Your task to perform on an android device: toggle notification dots Image 0: 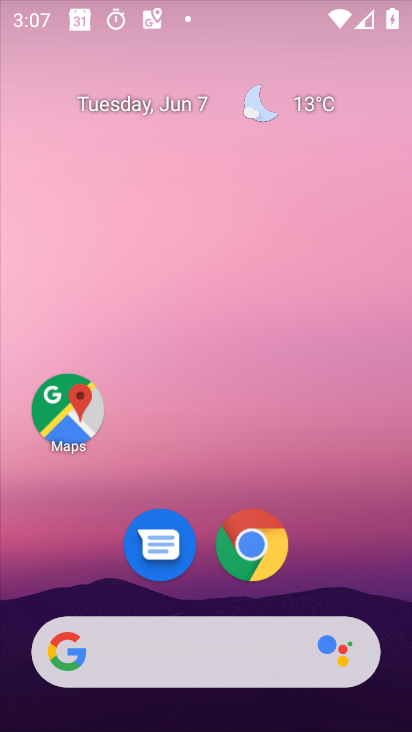
Step 0: drag from (337, 525) to (207, 53)
Your task to perform on an android device: toggle notification dots Image 1: 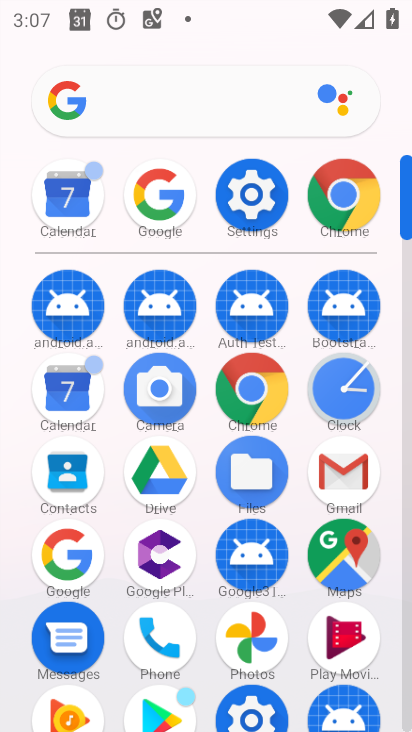
Step 1: click (253, 199)
Your task to perform on an android device: toggle notification dots Image 2: 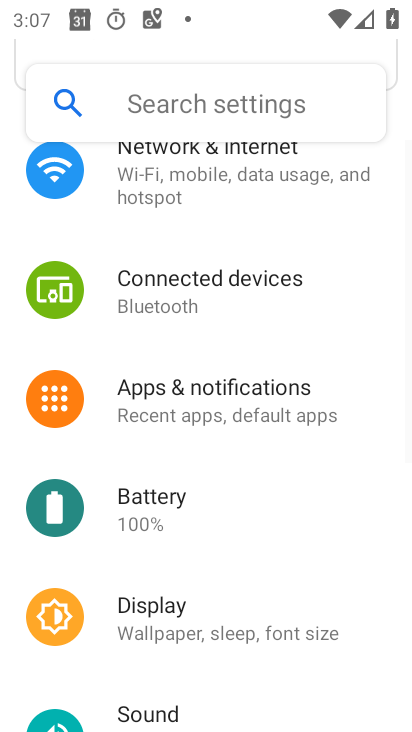
Step 2: drag from (237, 515) to (239, 384)
Your task to perform on an android device: toggle notification dots Image 3: 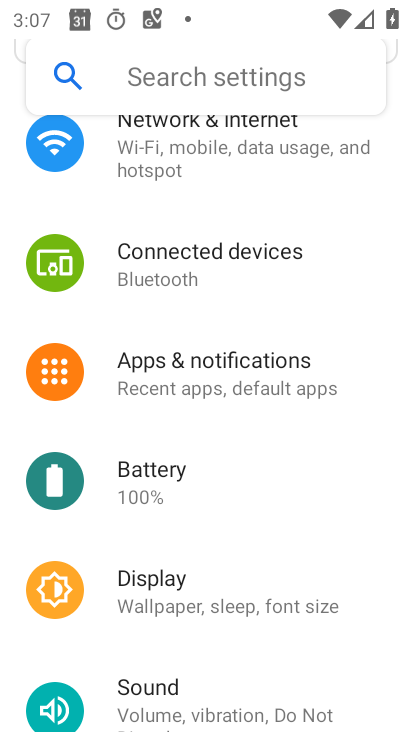
Step 3: click (227, 372)
Your task to perform on an android device: toggle notification dots Image 4: 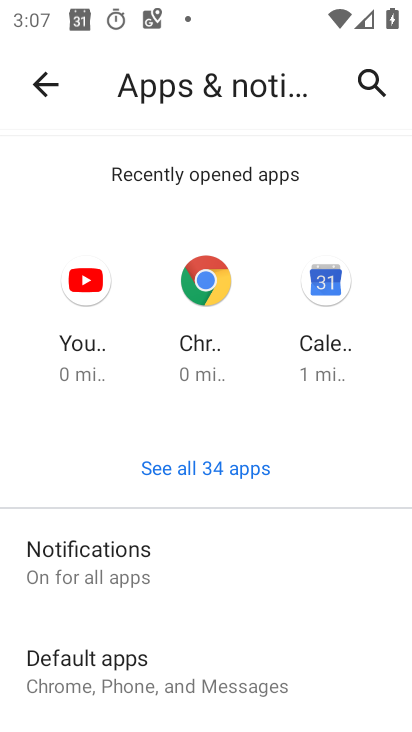
Step 4: click (197, 563)
Your task to perform on an android device: toggle notification dots Image 5: 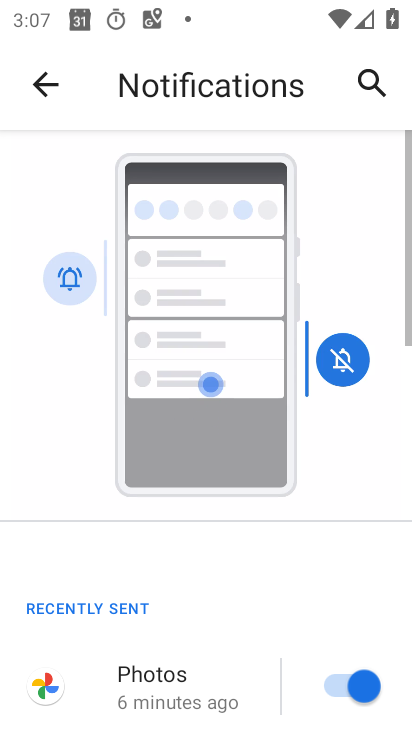
Step 5: drag from (243, 647) to (252, 72)
Your task to perform on an android device: toggle notification dots Image 6: 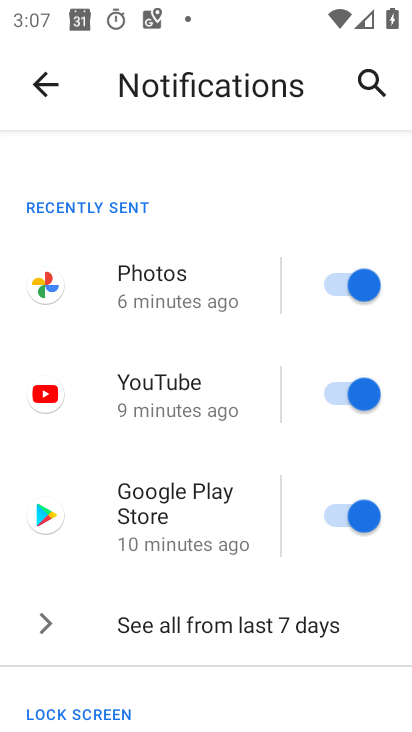
Step 6: drag from (241, 640) to (237, 181)
Your task to perform on an android device: toggle notification dots Image 7: 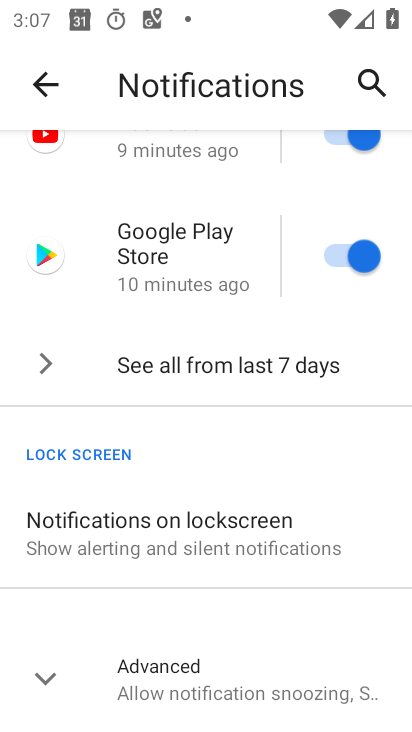
Step 7: click (207, 671)
Your task to perform on an android device: toggle notification dots Image 8: 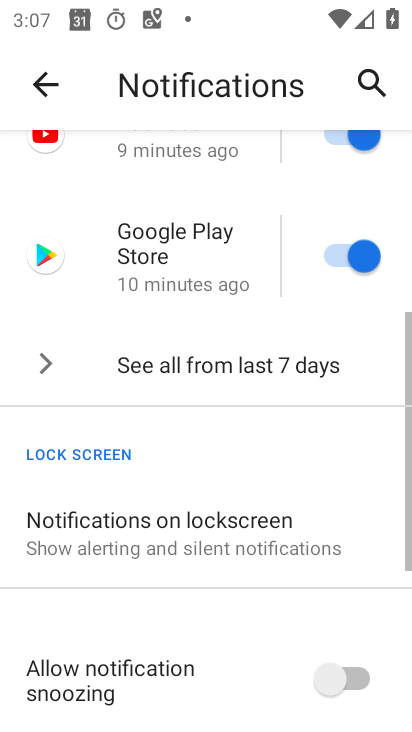
Step 8: drag from (262, 657) to (235, 214)
Your task to perform on an android device: toggle notification dots Image 9: 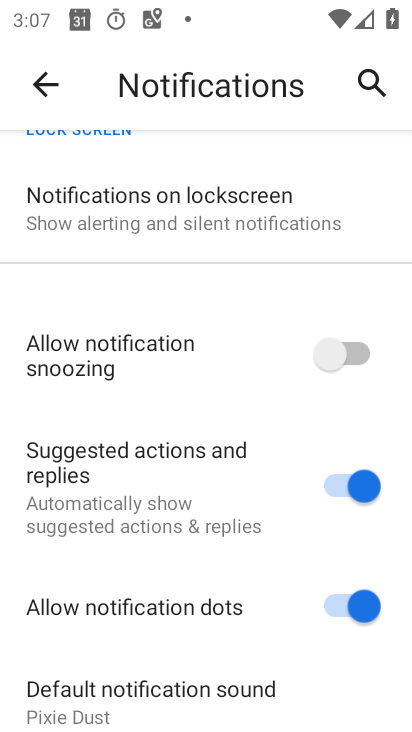
Step 9: click (357, 614)
Your task to perform on an android device: toggle notification dots Image 10: 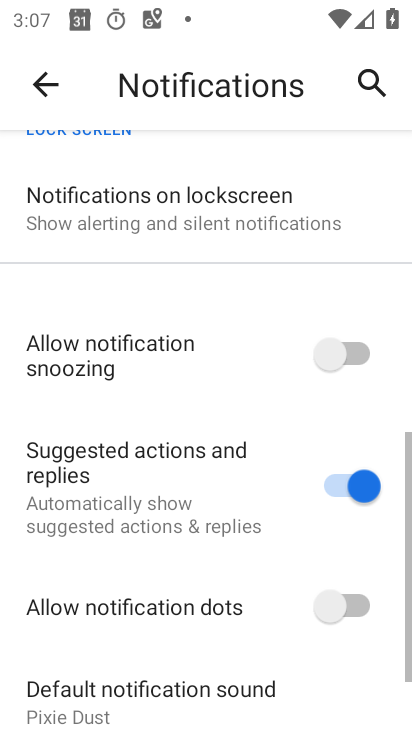
Step 10: task complete